Your task to perform on an android device: Open Amazon Image 0: 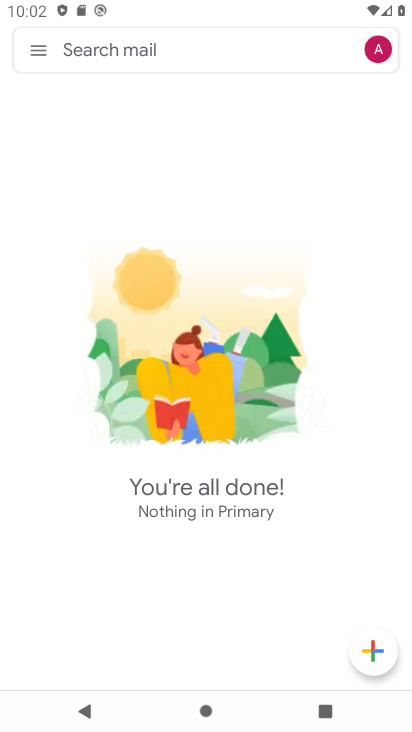
Step 0: press home button
Your task to perform on an android device: Open Amazon Image 1: 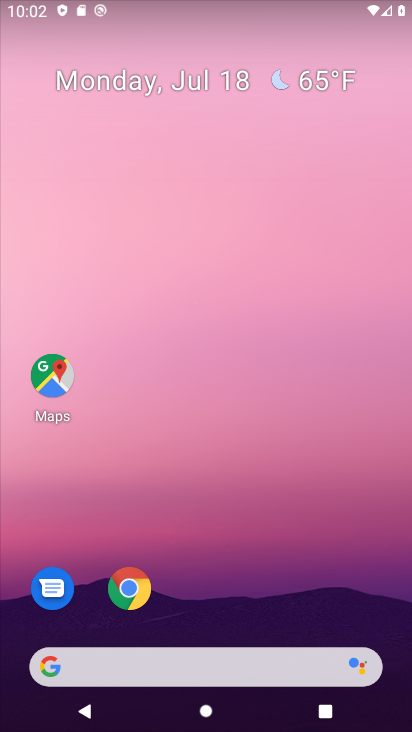
Step 1: click (50, 668)
Your task to perform on an android device: Open Amazon Image 2: 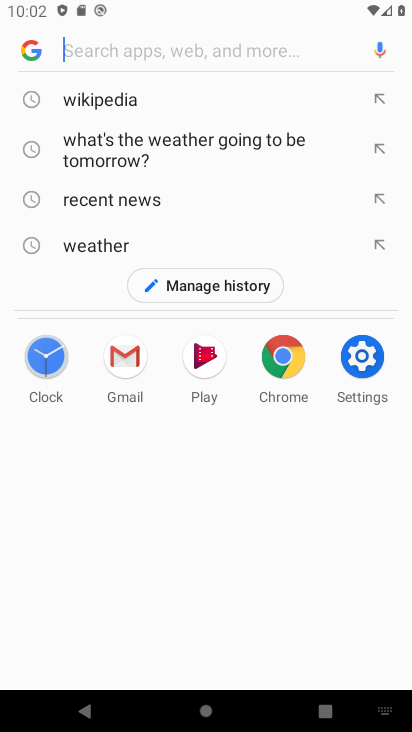
Step 2: type " Amazon"
Your task to perform on an android device: Open Amazon Image 3: 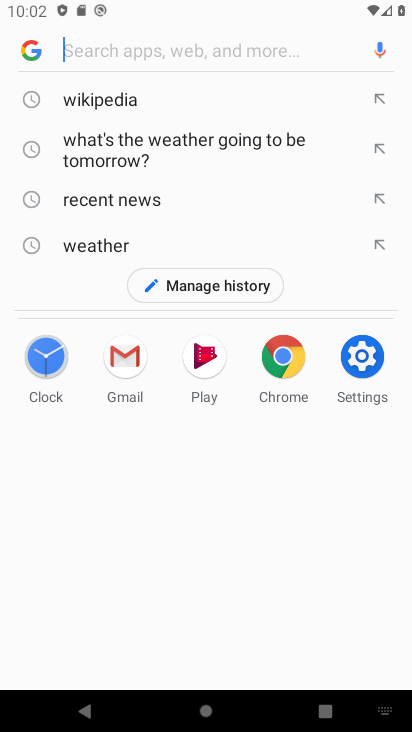
Step 3: click (109, 52)
Your task to perform on an android device: Open Amazon Image 4: 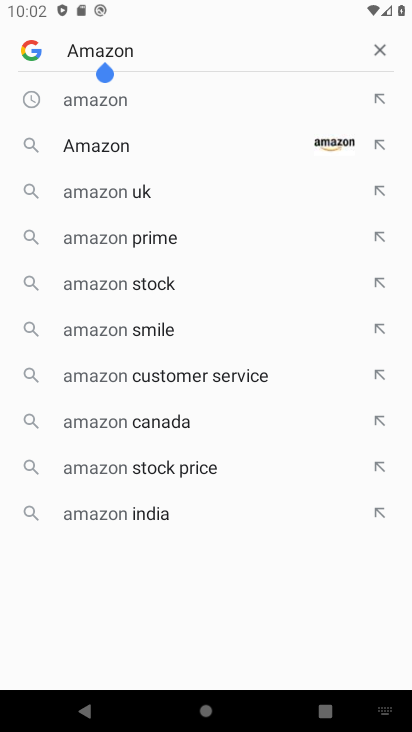
Step 4: click (333, 146)
Your task to perform on an android device: Open Amazon Image 5: 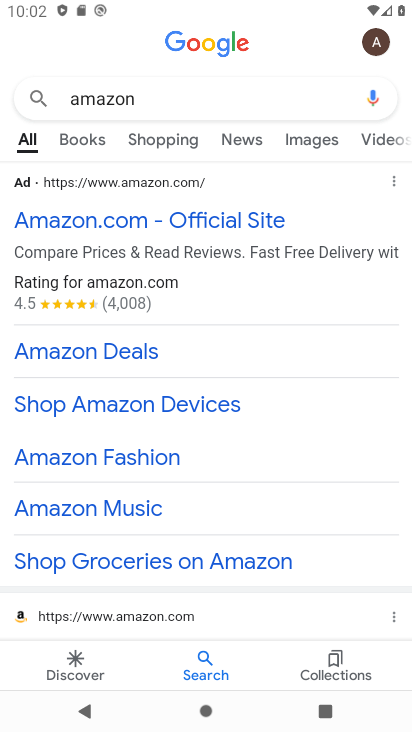
Step 5: drag from (354, 549) to (323, 316)
Your task to perform on an android device: Open Amazon Image 6: 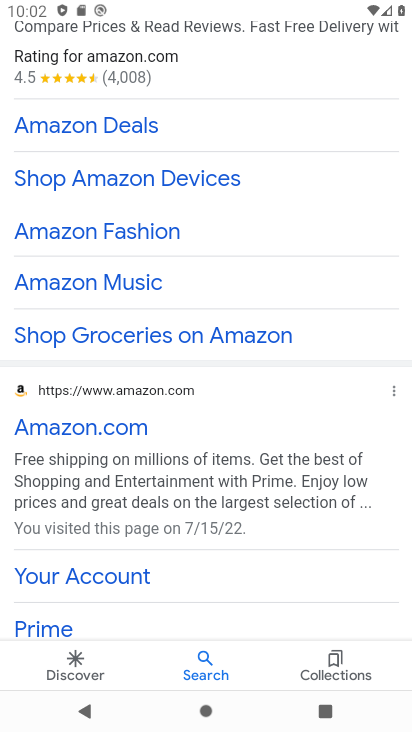
Step 6: click (68, 424)
Your task to perform on an android device: Open Amazon Image 7: 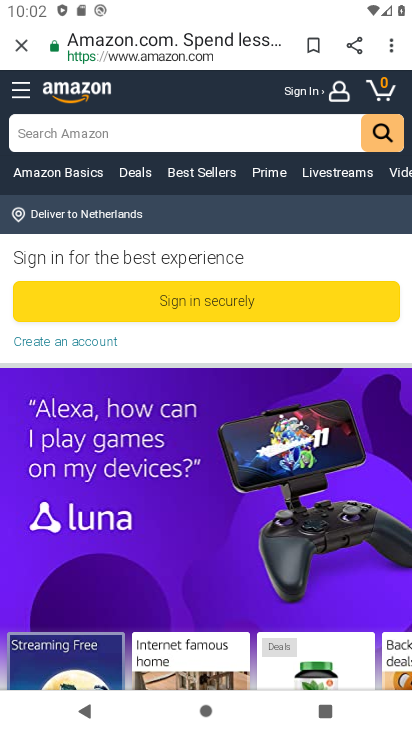
Step 7: task complete